Your task to perform on an android device: open app "Facebook" (install if not already installed) Image 0: 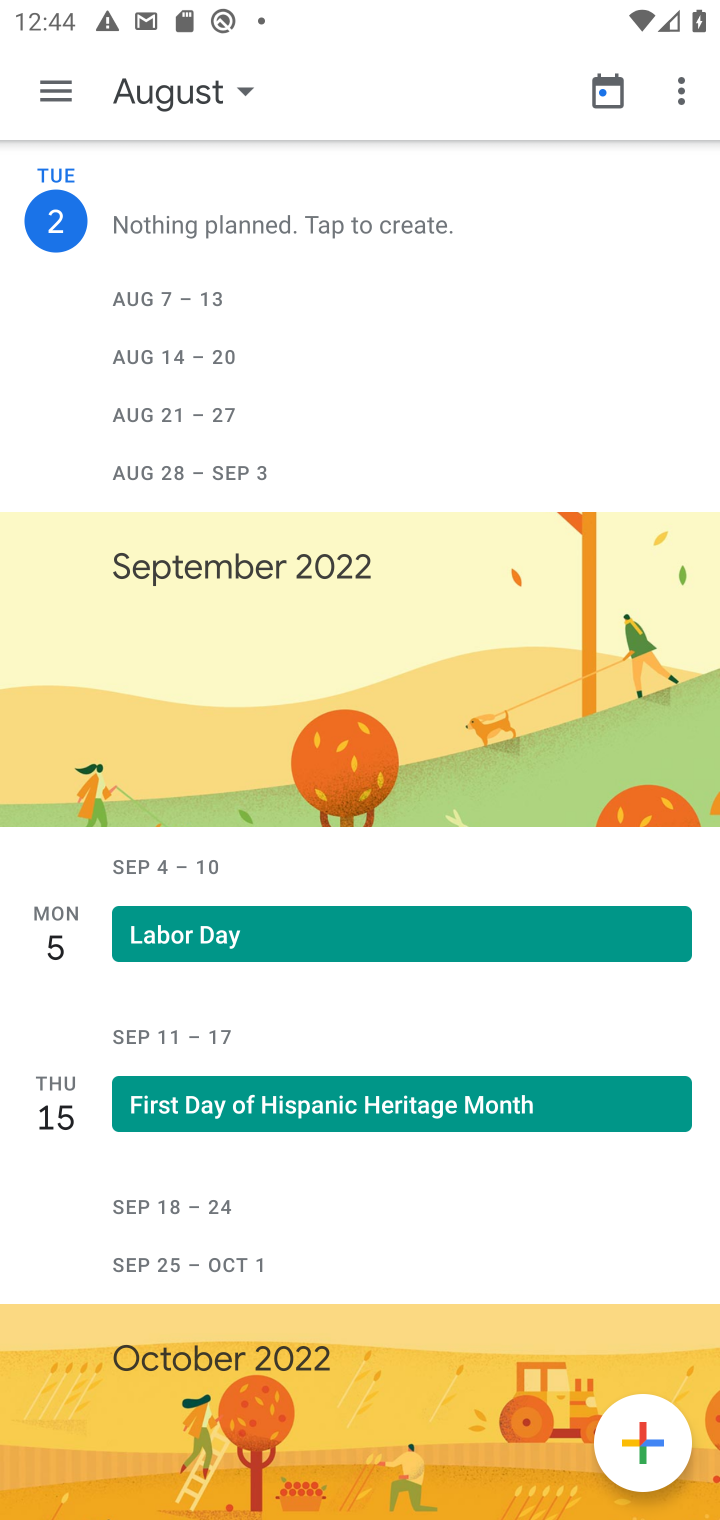
Step 0: press home button
Your task to perform on an android device: open app "Facebook" (install if not already installed) Image 1: 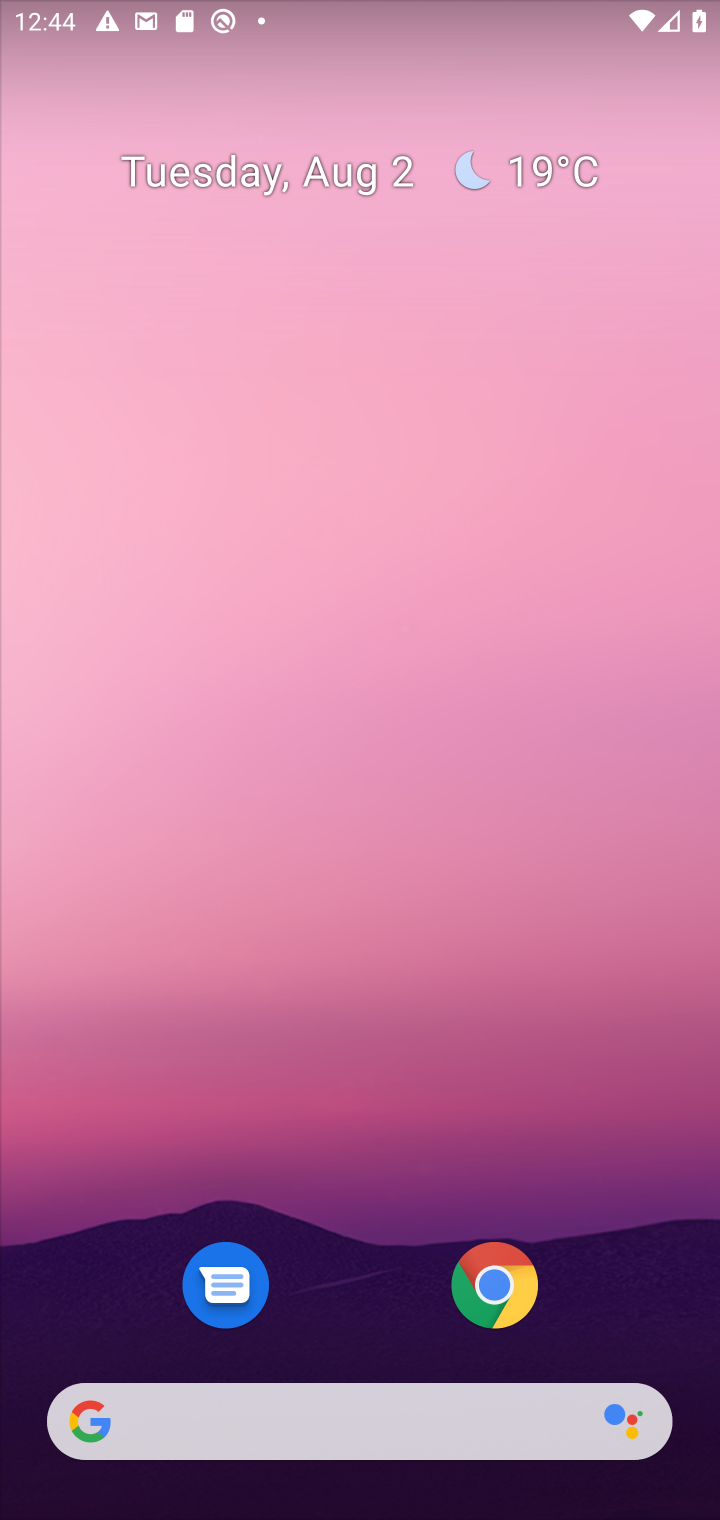
Step 1: drag from (416, 1321) to (313, 60)
Your task to perform on an android device: open app "Facebook" (install if not already installed) Image 2: 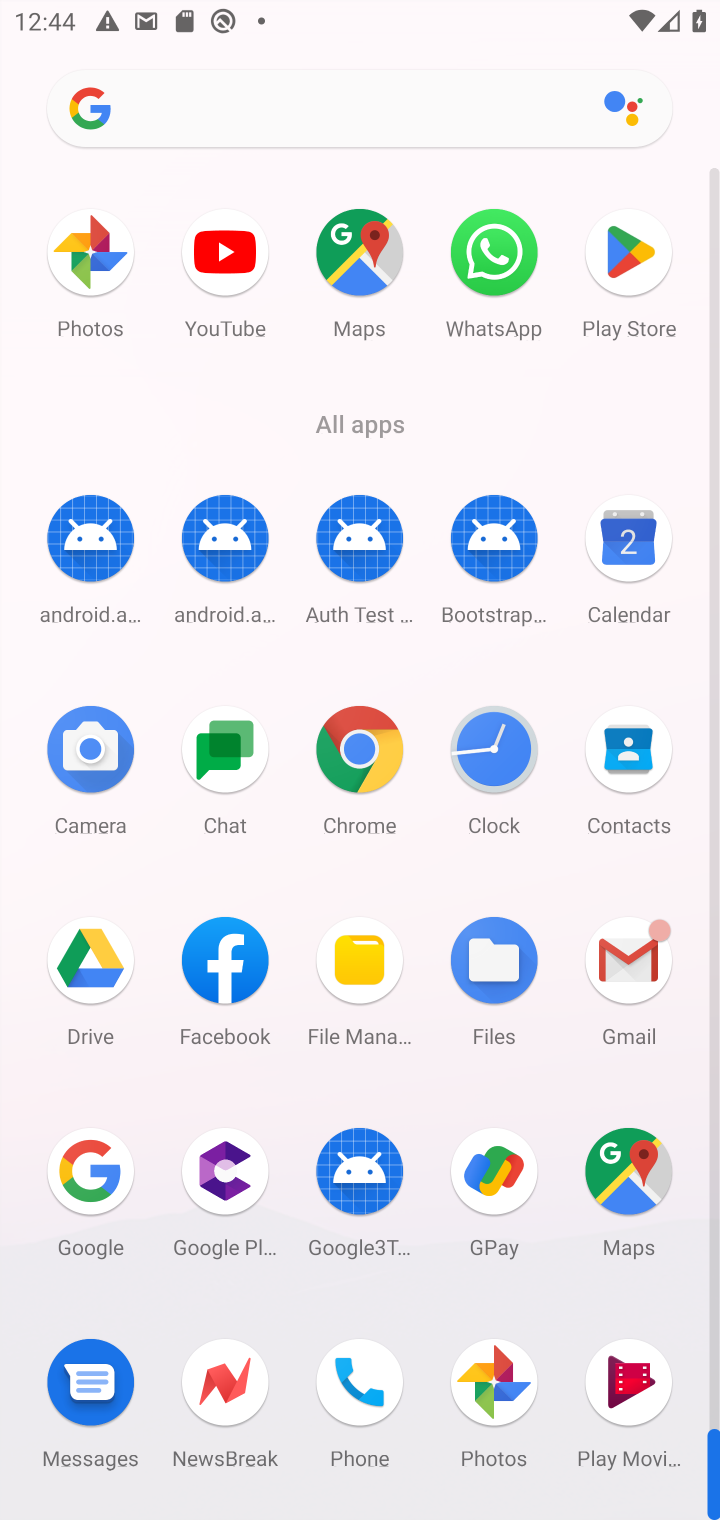
Step 2: drag from (414, 1275) to (347, 6)
Your task to perform on an android device: open app "Facebook" (install if not already installed) Image 3: 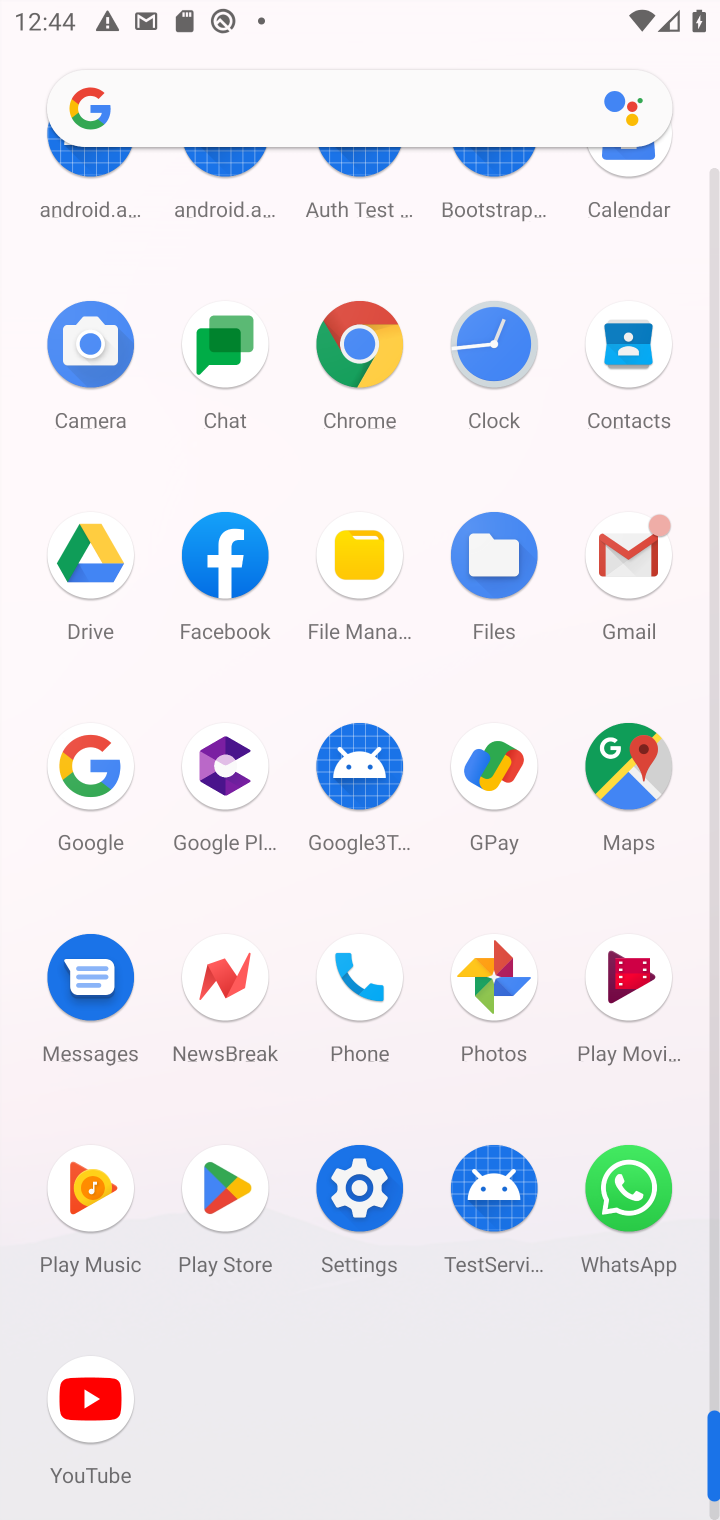
Step 3: click (218, 1195)
Your task to perform on an android device: open app "Facebook" (install if not already installed) Image 4: 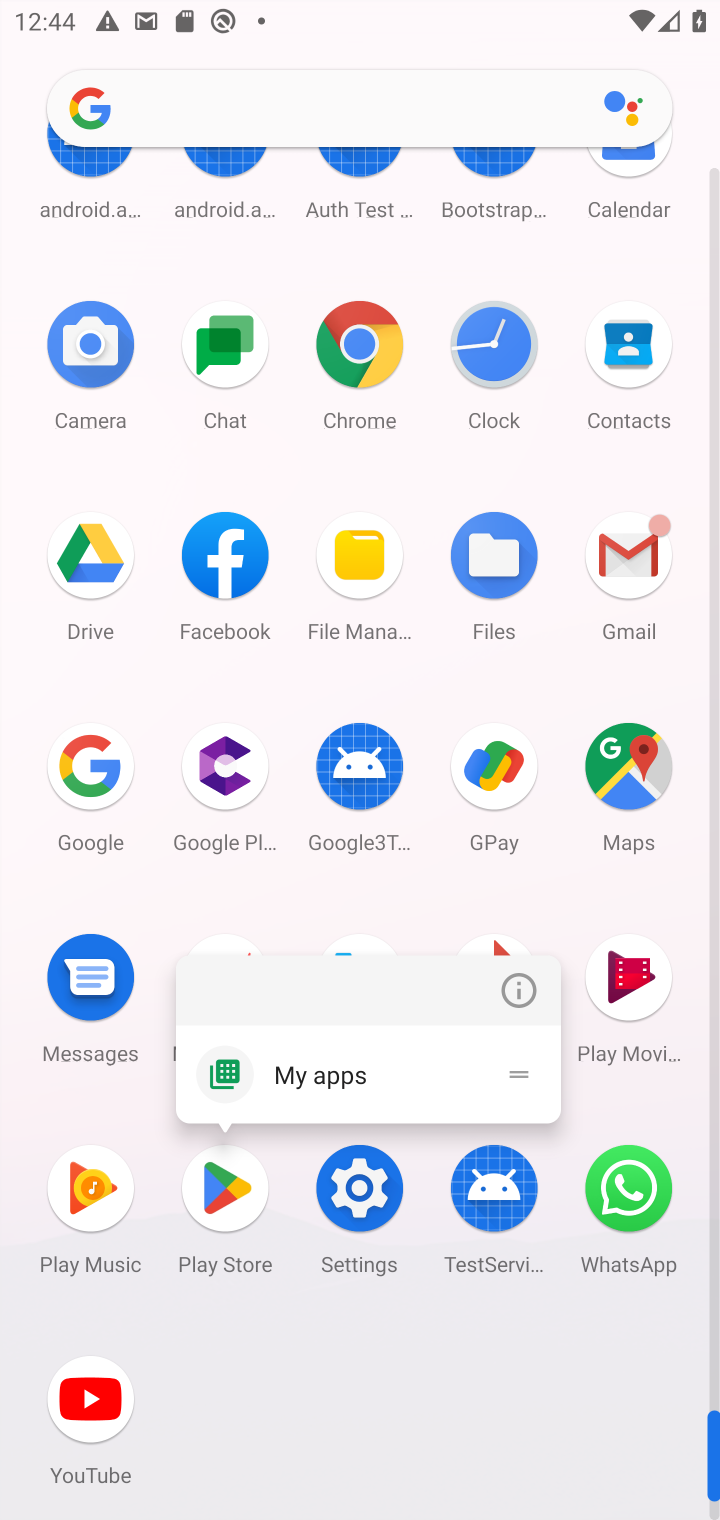
Step 4: click (216, 1185)
Your task to perform on an android device: open app "Facebook" (install if not already installed) Image 5: 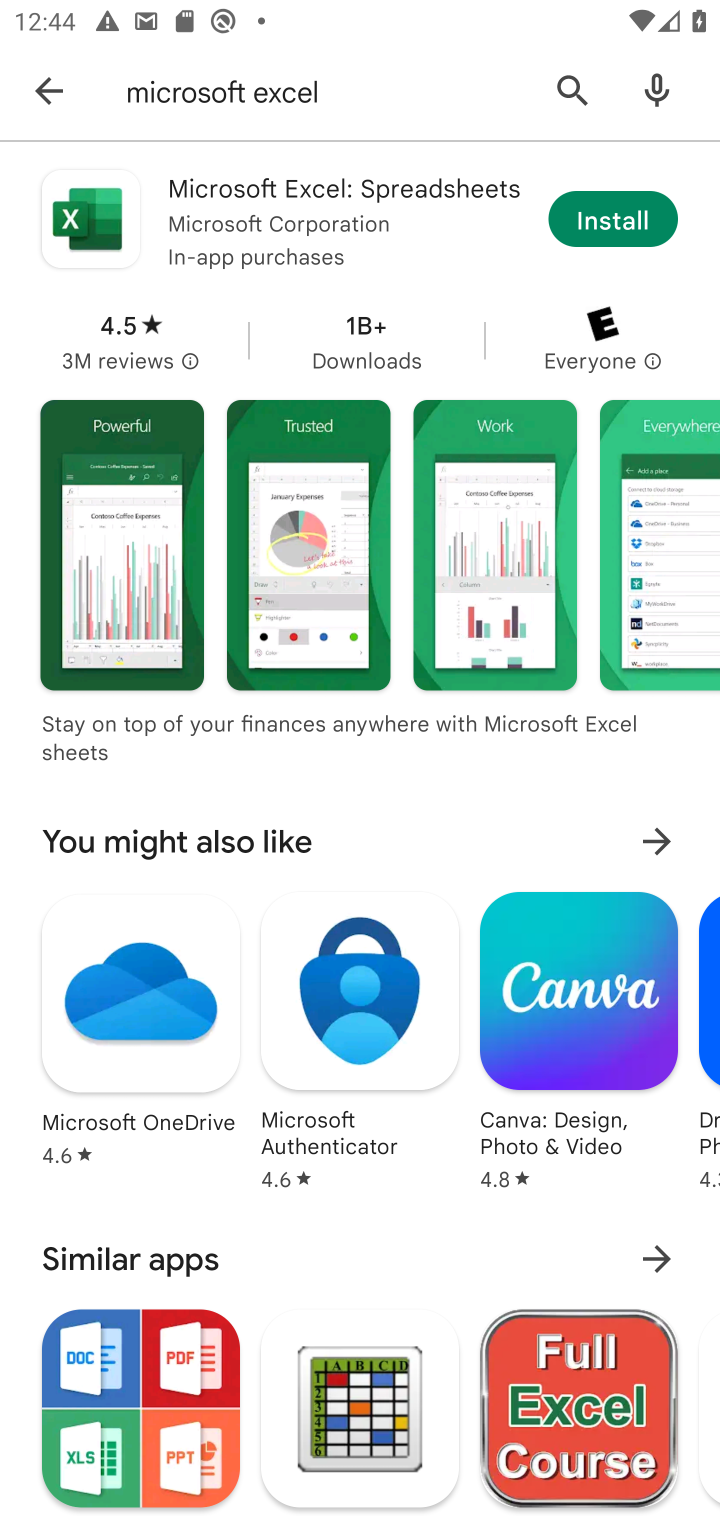
Step 5: click (567, 66)
Your task to perform on an android device: open app "Facebook" (install if not already installed) Image 6: 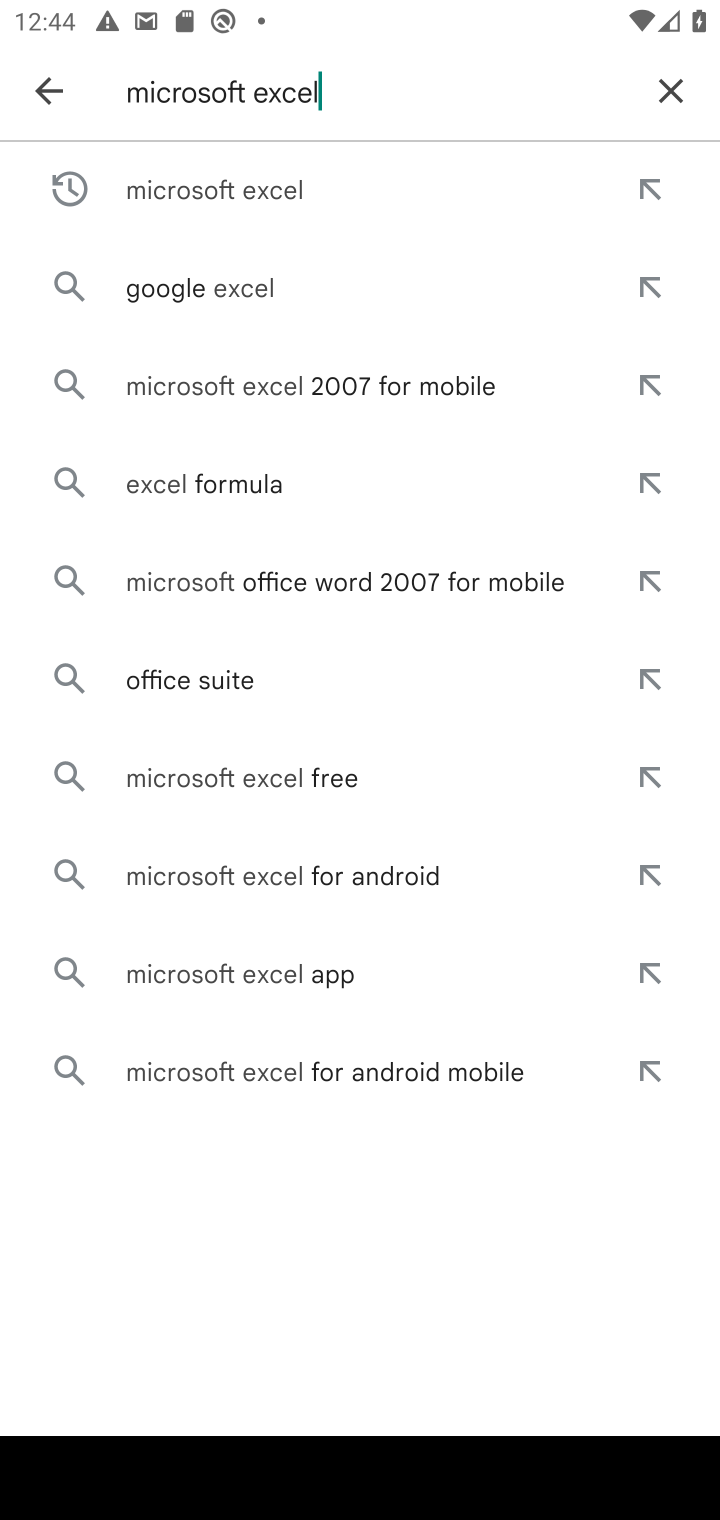
Step 6: click (662, 88)
Your task to perform on an android device: open app "Facebook" (install if not already installed) Image 7: 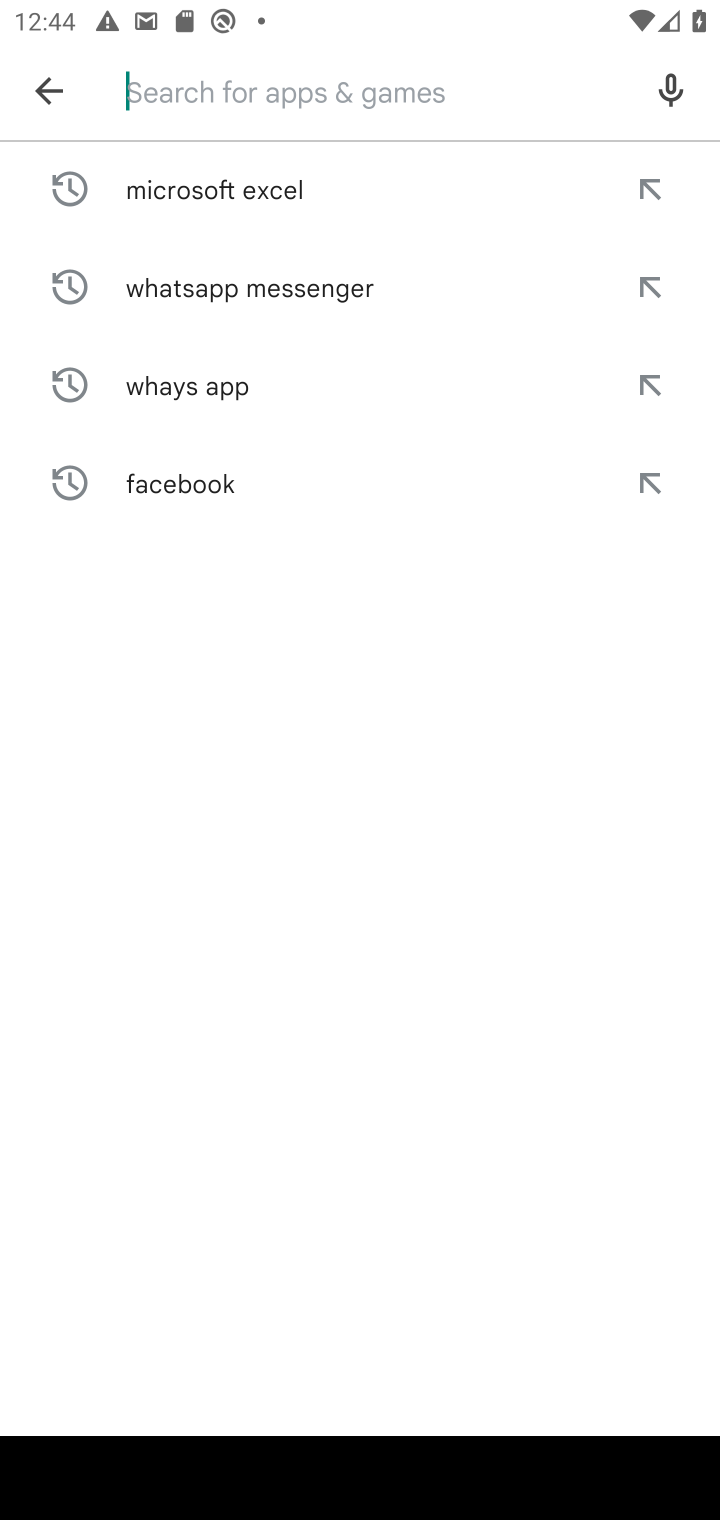
Step 7: type "Facebook"
Your task to perform on an android device: open app "Facebook" (install if not already installed) Image 8: 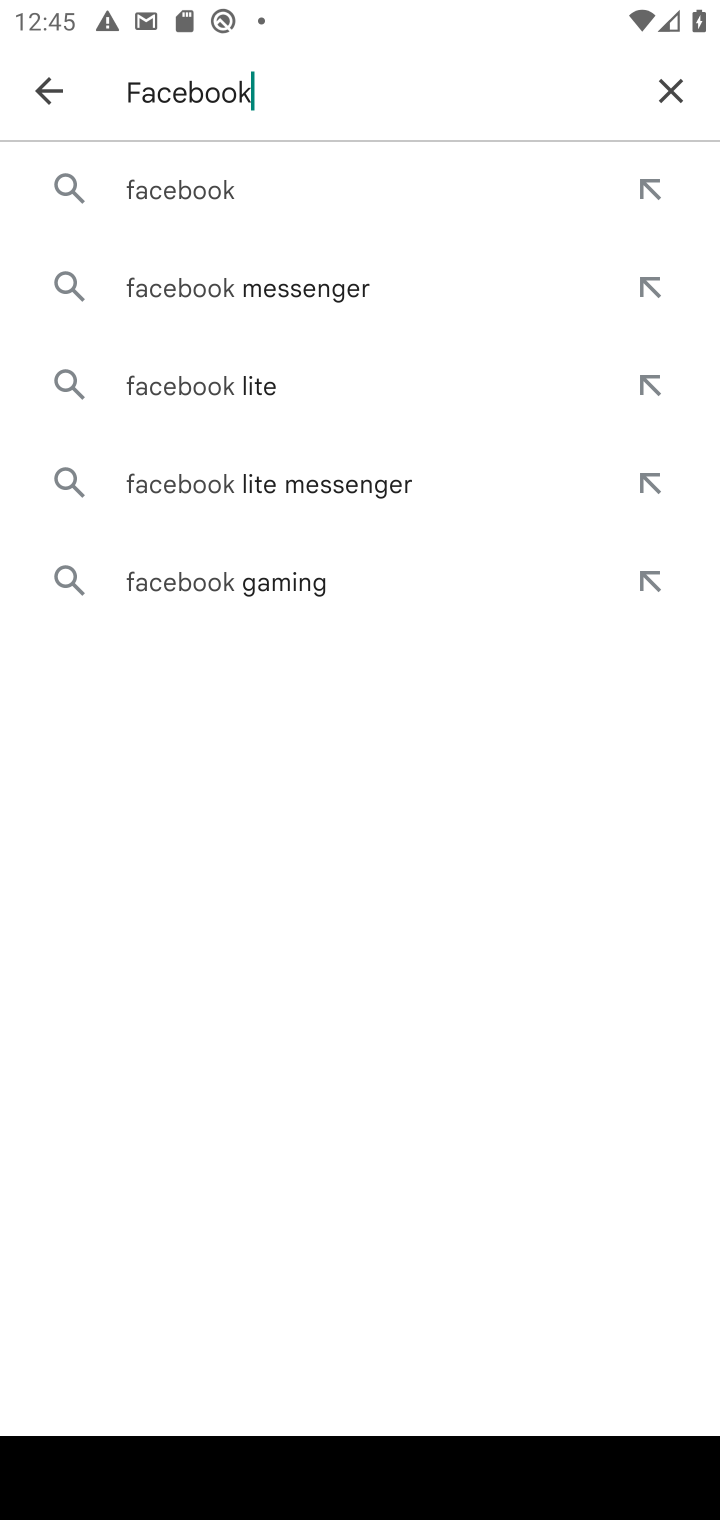
Step 8: click (186, 179)
Your task to perform on an android device: open app "Facebook" (install if not already installed) Image 9: 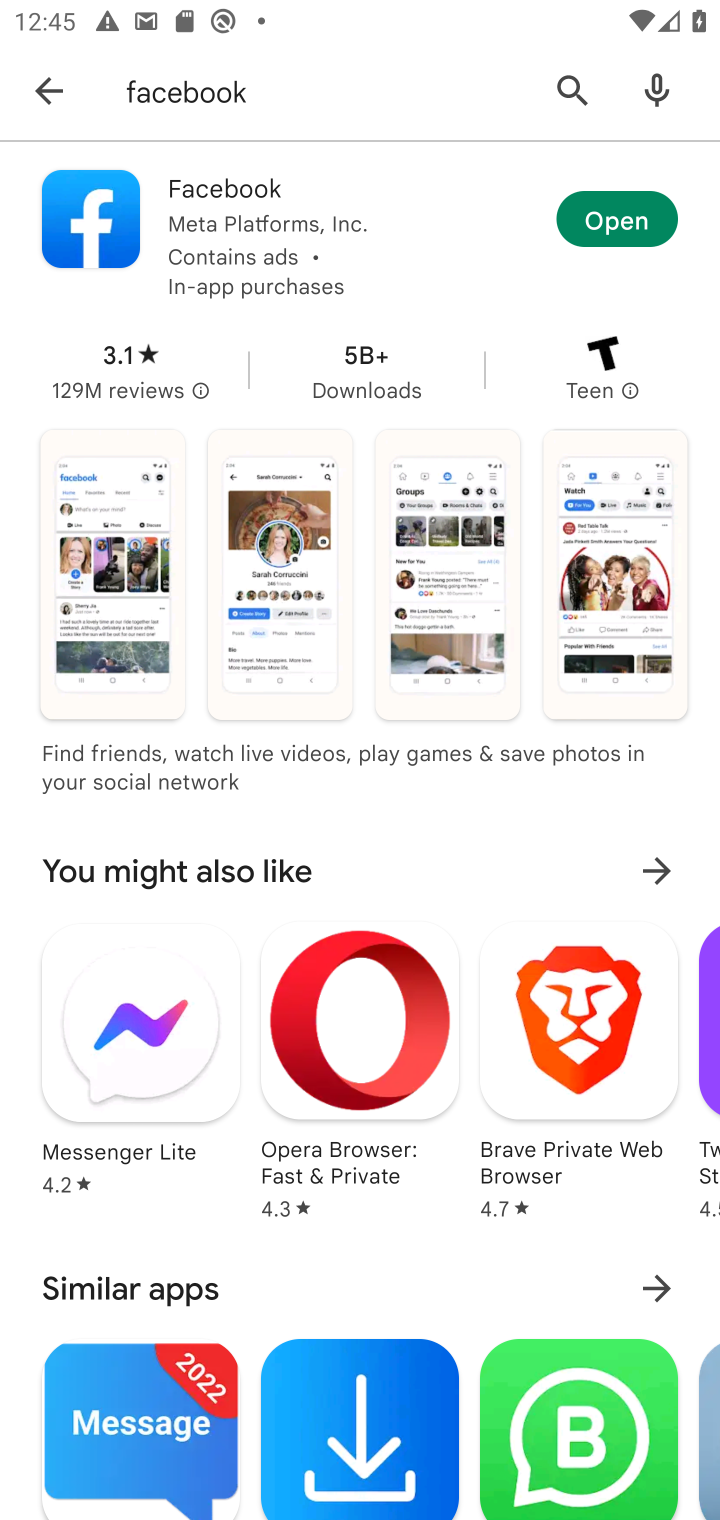
Step 9: click (640, 219)
Your task to perform on an android device: open app "Facebook" (install if not already installed) Image 10: 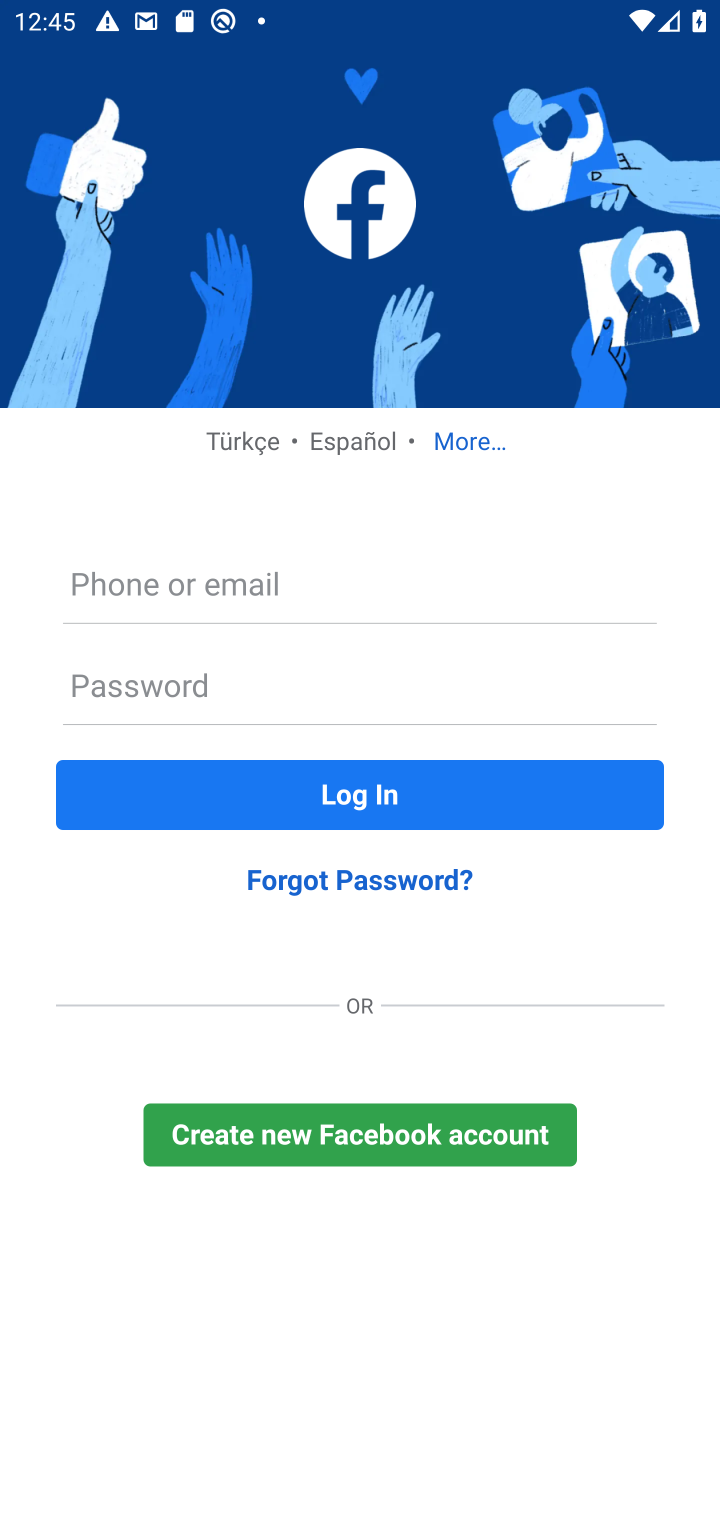
Step 10: task complete